Your task to perform on an android device: toggle location history Image 0: 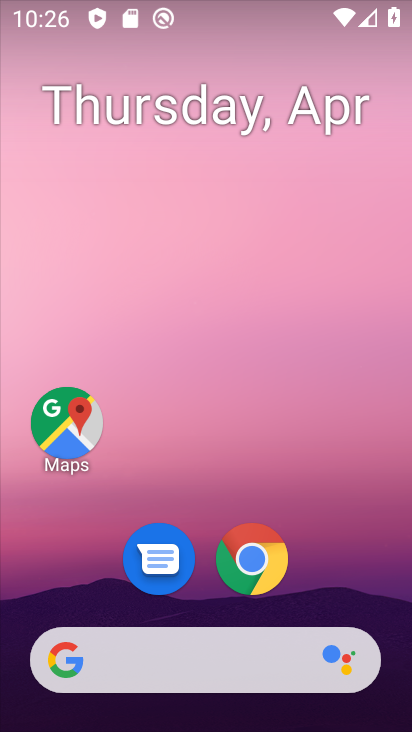
Step 0: click (75, 436)
Your task to perform on an android device: toggle location history Image 1: 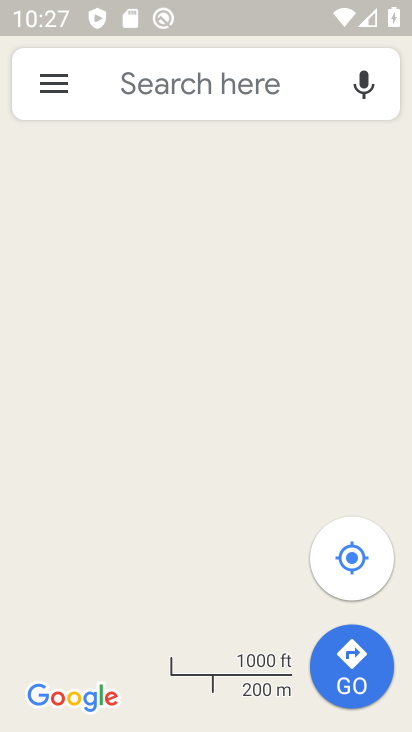
Step 1: click (70, 90)
Your task to perform on an android device: toggle location history Image 2: 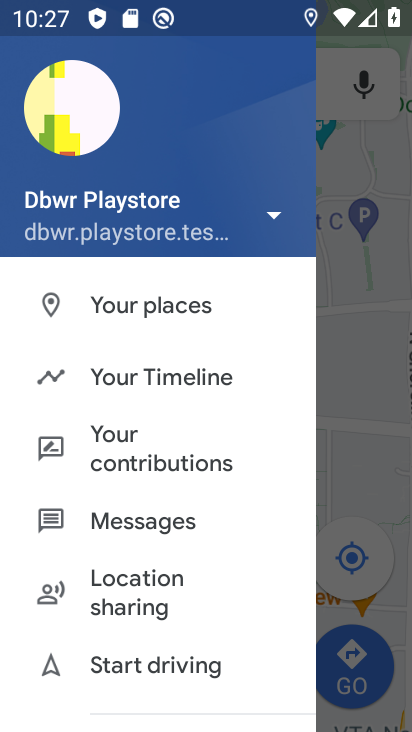
Step 2: click (135, 374)
Your task to perform on an android device: toggle location history Image 3: 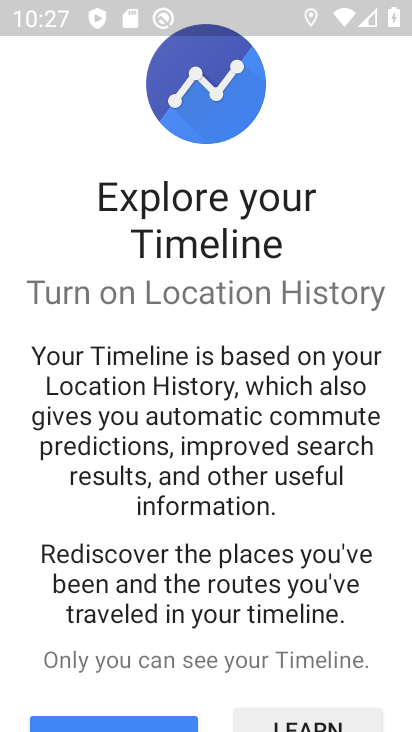
Step 3: drag from (167, 635) to (210, 338)
Your task to perform on an android device: toggle location history Image 4: 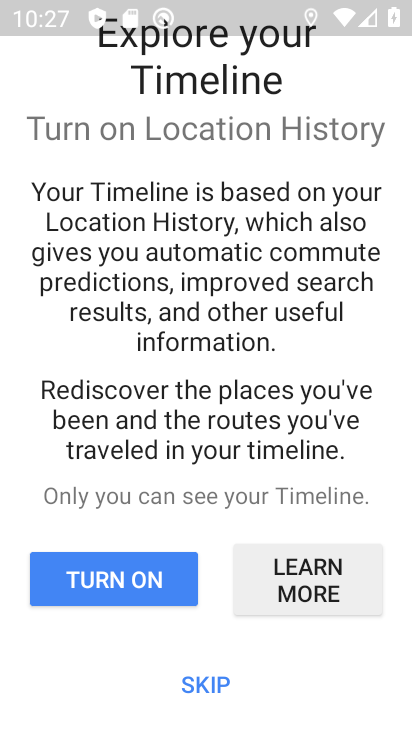
Step 4: click (212, 674)
Your task to perform on an android device: toggle location history Image 5: 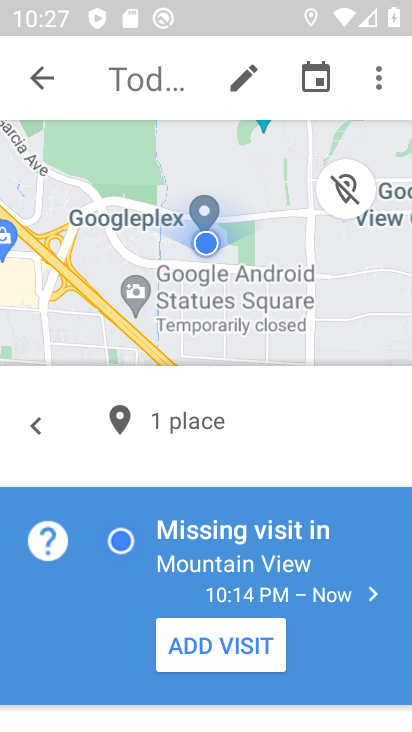
Step 5: click (382, 82)
Your task to perform on an android device: toggle location history Image 6: 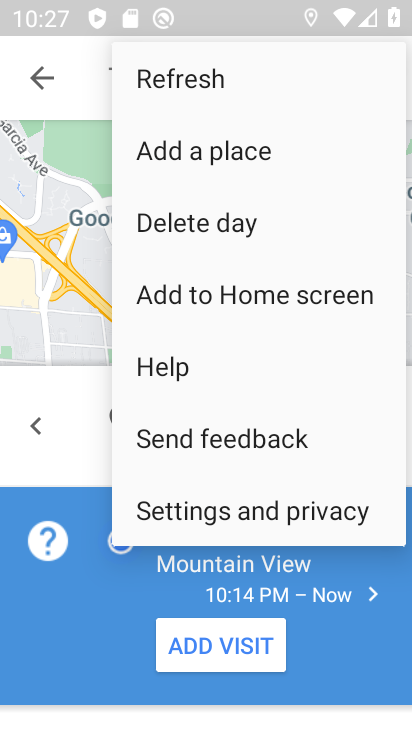
Step 6: click (278, 504)
Your task to perform on an android device: toggle location history Image 7: 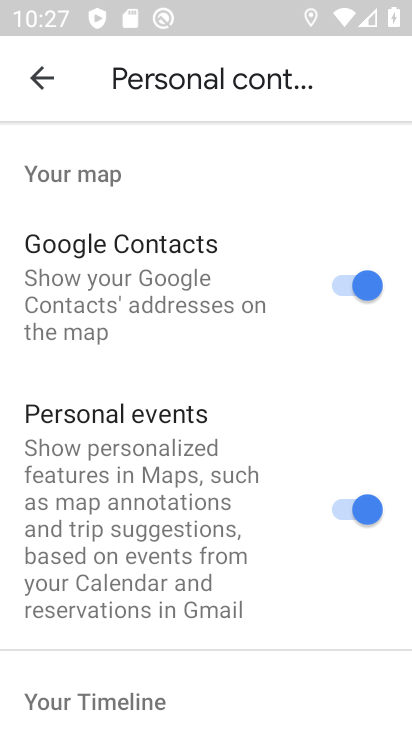
Step 7: drag from (257, 620) to (246, 206)
Your task to perform on an android device: toggle location history Image 8: 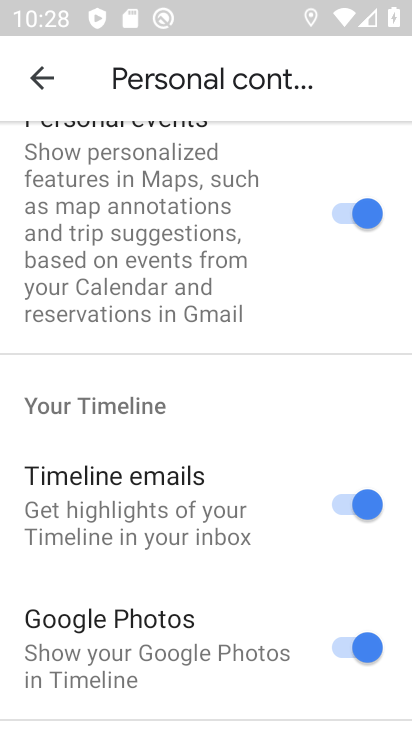
Step 8: drag from (202, 572) to (243, 182)
Your task to perform on an android device: toggle location history Image 9: 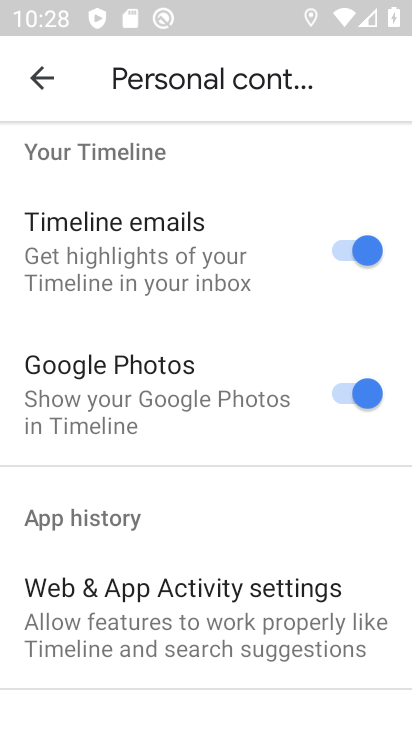
Step 9: drag from (245, 488) to (234, 143)
Your task to perform on an android device: toggle location history Image 10: 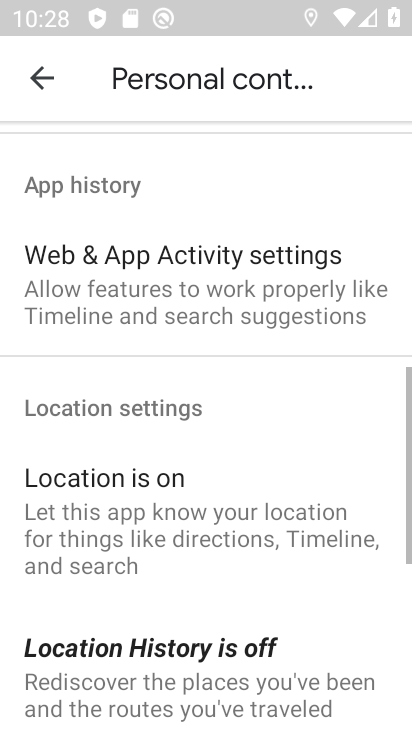
Step 10: drag from (234, 630) to (222, 277)
Your task to perform on an android device: toggle location history Image 11: 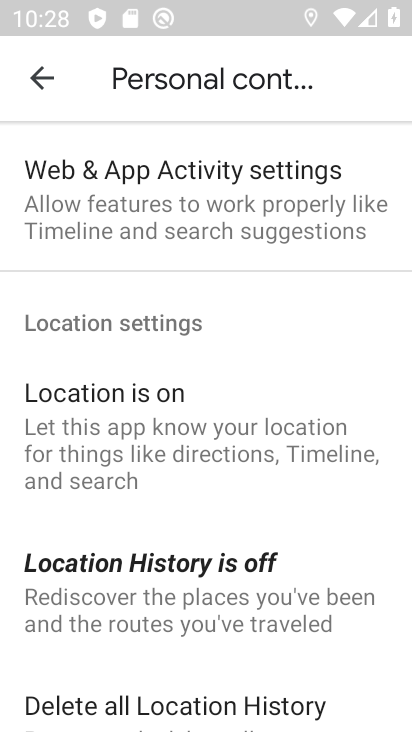
Step 11: click (242, 591)
Your task to perform on an android device: toggle location history Image 12: 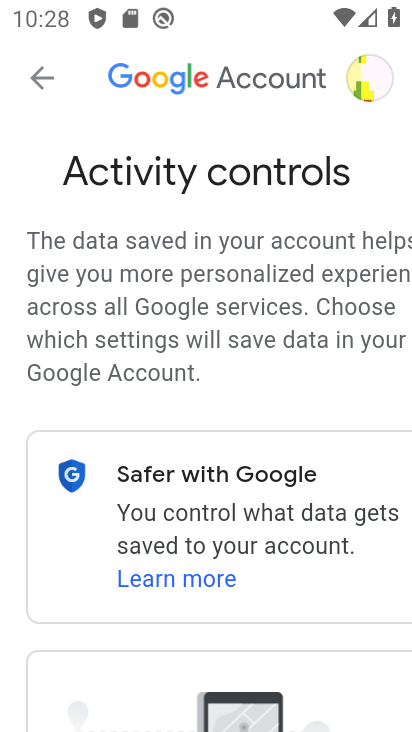
Step 12: drag from (245, 639) to (208, 221)
Your task to perform on an android device: toggle location history Image 13: 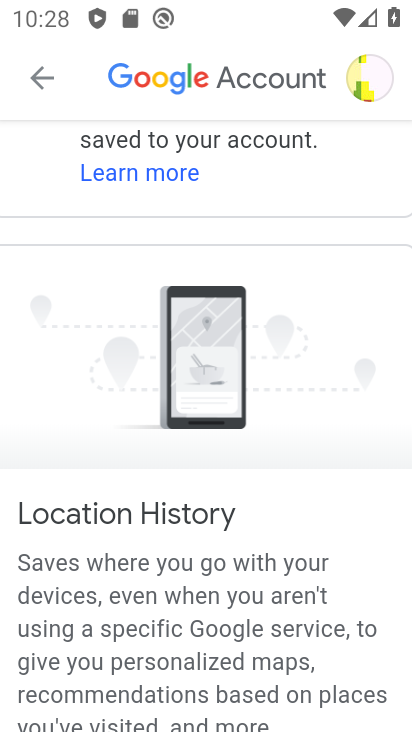
Step 13: drag from (280, 557) to (269, 251)
Your task to perform on an android device: toggle location history Image 14: 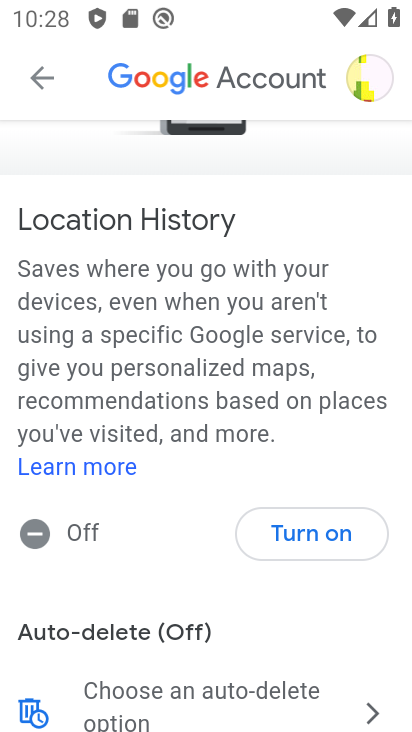
Step 14: click (306, 535)
Your task to perform on an android device: toggle location history Image 15: 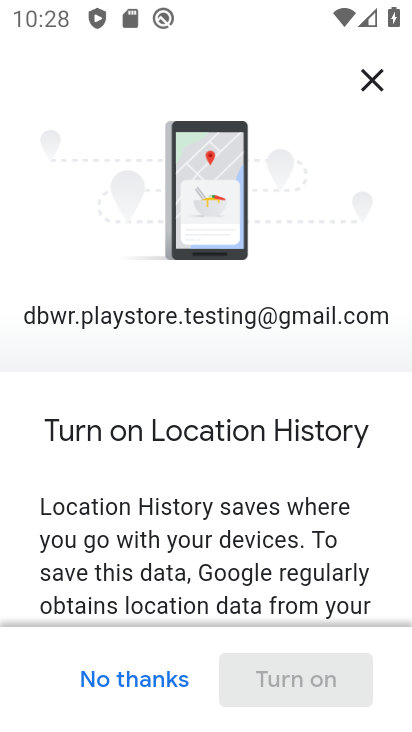
Step 15: drag from (302, 592) to (223, 133)
Your task to perform on an android device: toggle location history Image 16: 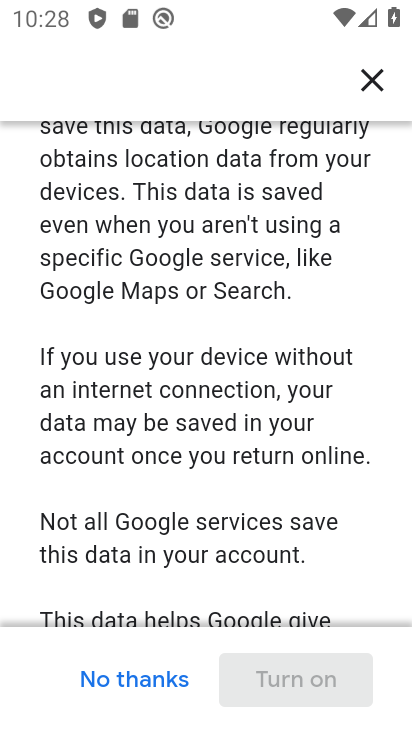
Step 16: drag from (255, 531) to (239, 188)
Your task to perform on an android device: toggle location history Image 17: 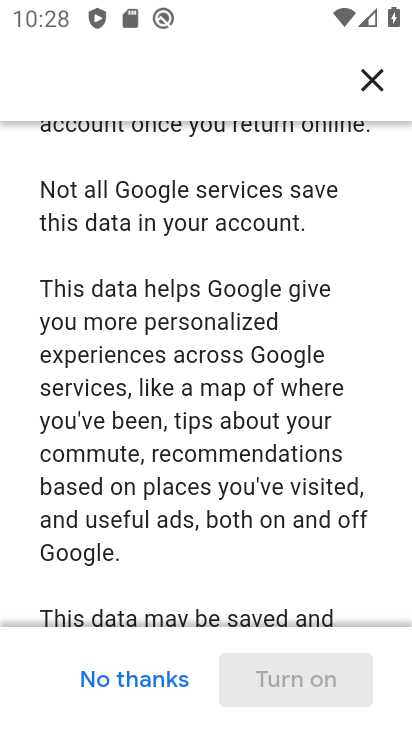
Step 17: drag from (259, 523) to (229, 124)
Your task to perform on an android device: toggle location history Image 18: 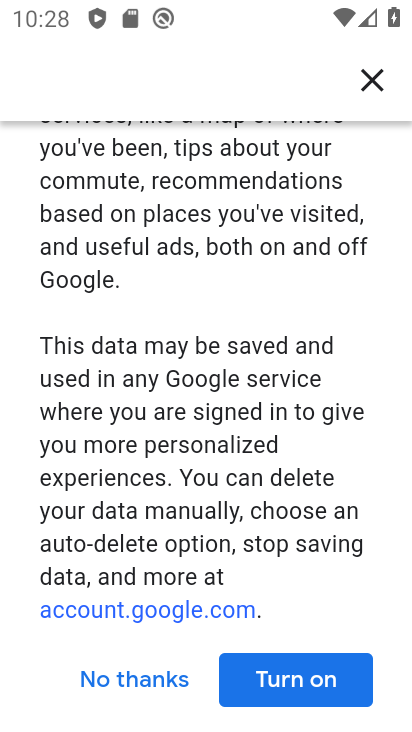
Step 18: click (292, 696)
Your task to perform on an android device: toggle location history Image 19: 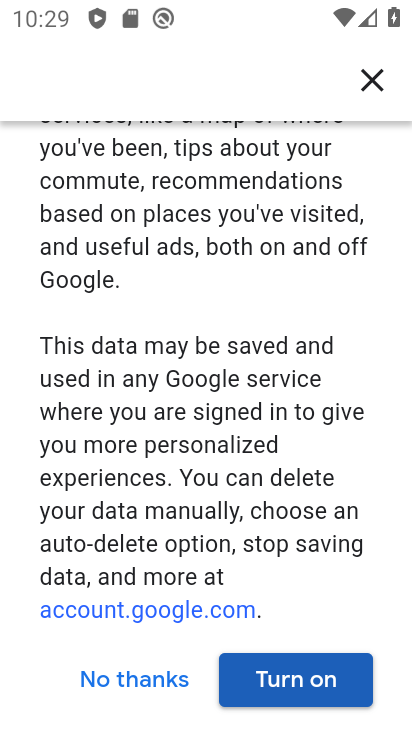
Step 19: click (292, 696)
Your task to perform on an android device: toggle location history Image 20: 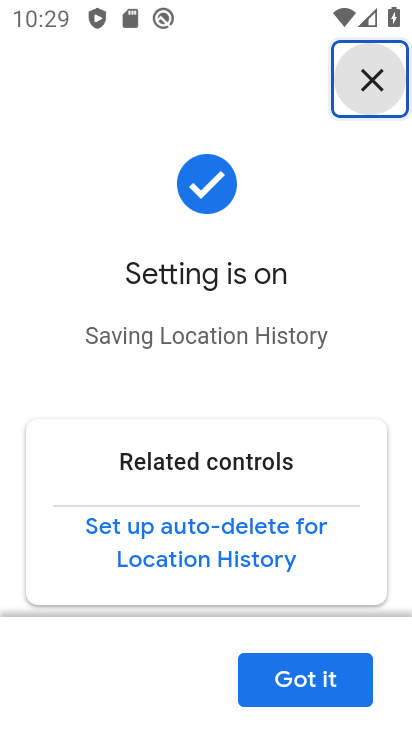
Step 20: click (311, 672)
Your task to perform on an android device: toggle location history Image 21: 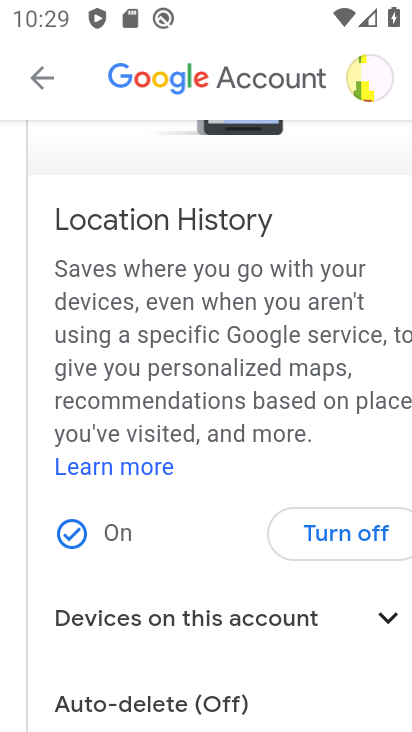
Step 21: task complete